Your task to perform on an android device: Open calendar and show me the third week of next month Image 0: 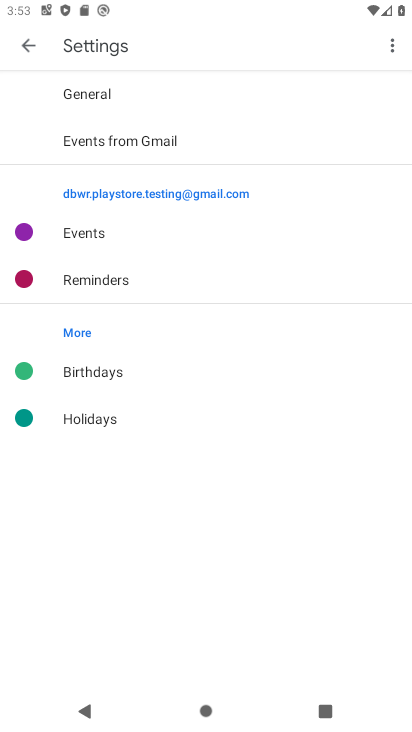
Step 0: press home button
Your task to perform on an android device: Open calendar and show me the third week of next month Image 1: 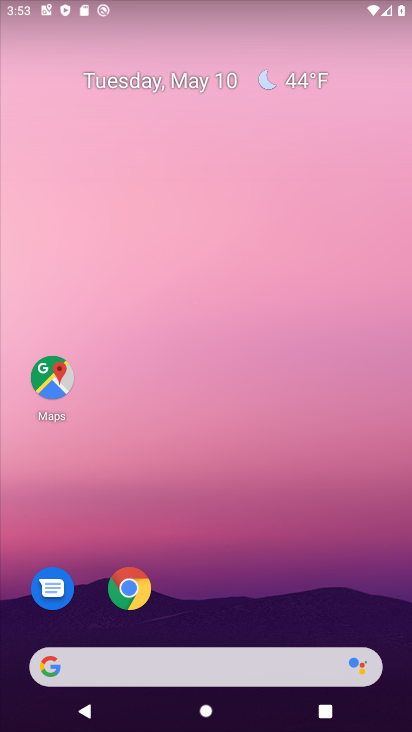
Step 1: drag from (219, 551) to (196, 85)
Your task to perform on an android device: Open calendar and show me the third week of next month Image 2: 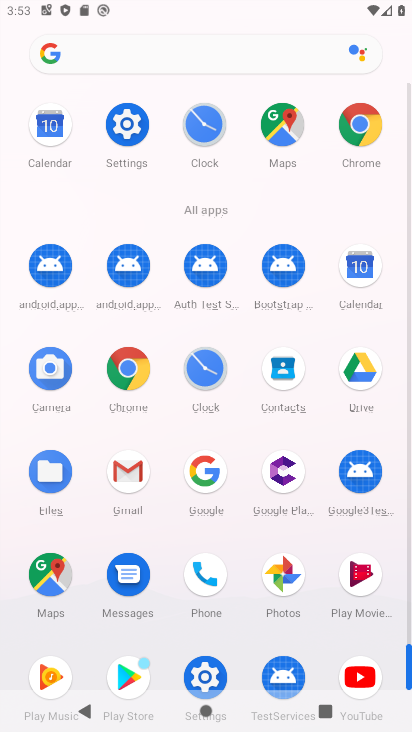
Step 2: click (366, 262)
Your task to perform on an android device: Open calendar and show me the third week of next month Image 3: 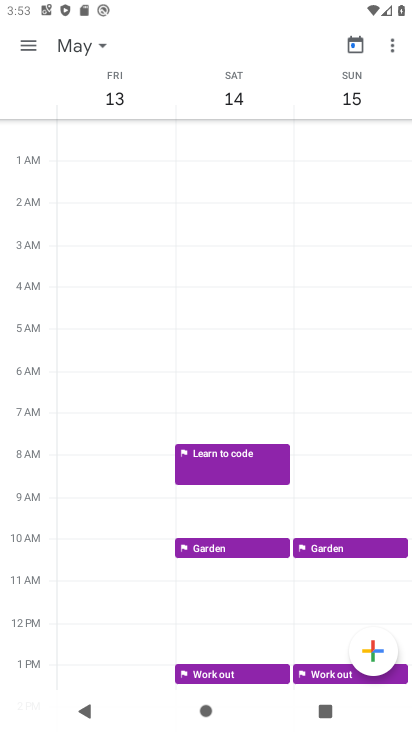
Step 3: click (34, 40)
Your task to perform on an android device: Open calendar and show me the third week of next month Image 4: 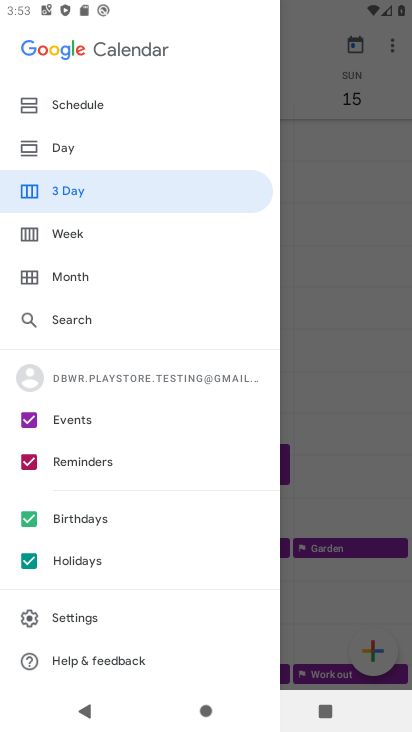
Step 4: click (76, 239)
Your task to perform on an android device: Open calendar and show me the third week of next month Image 5: 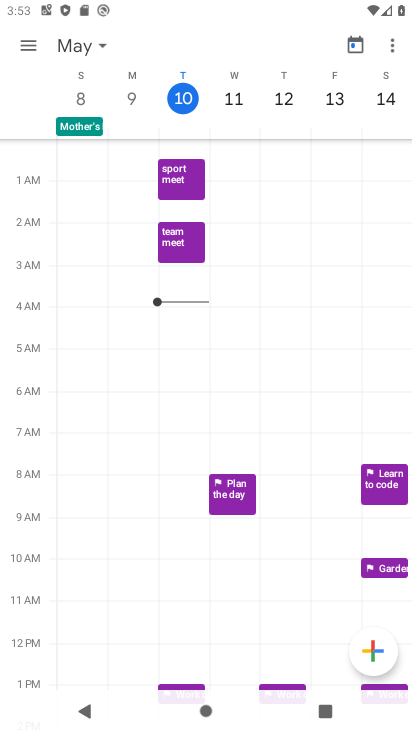
Step 5: click (84, 47)
Your task to perform on an android device: Open calendar and show me the third week of next month Image 6: 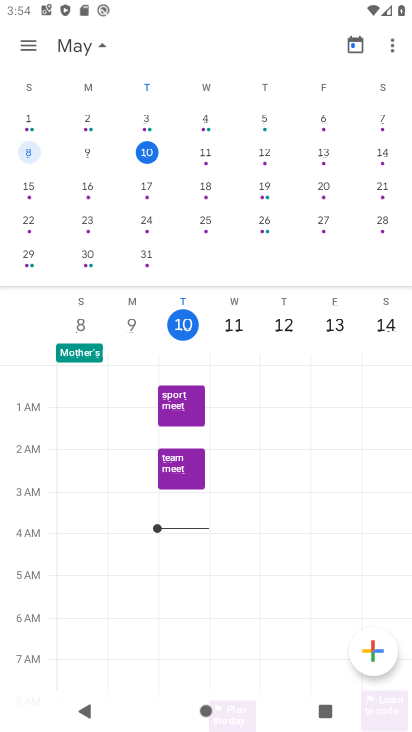
Step 6: drag from (359, 169) to (9, 117)
Your task to perform on an android device: Open calendar and show me the third week of next month Image 7: 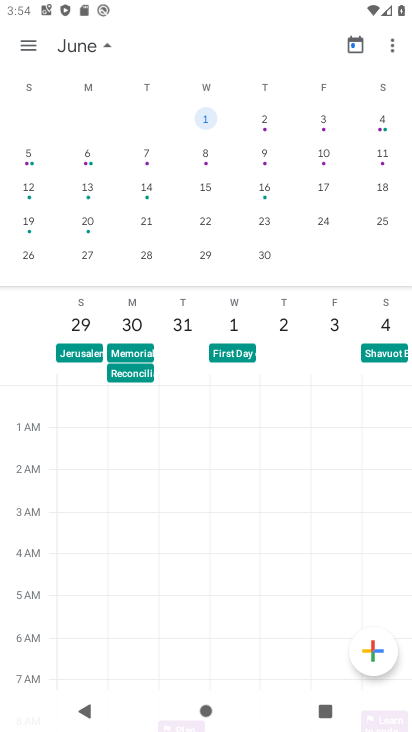
Step 7: click (85, 219)
Your task to perform on an android device: Open calendar and show me the third week of next month Image 8: 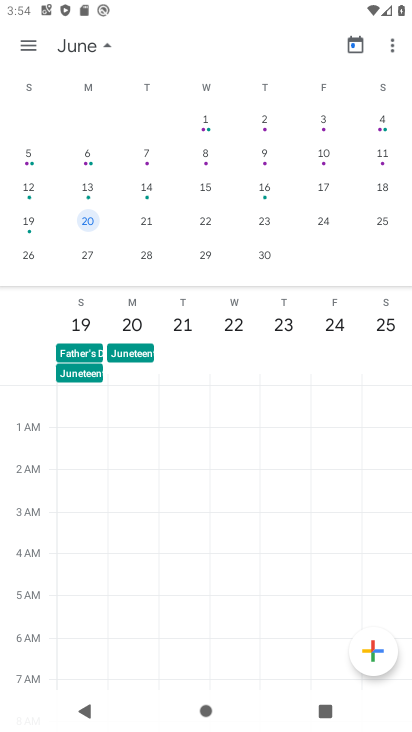
Step 8: task complete